Your task to perform on an android device: manage bookmarks in the chrome app Image 0: 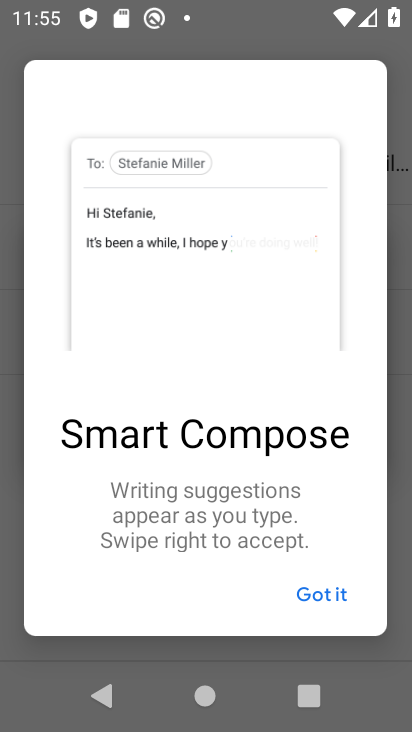
Step 0: click (328, 598)
Your task to perform on an android device: manage bookmarks in the chrome app Image 1: 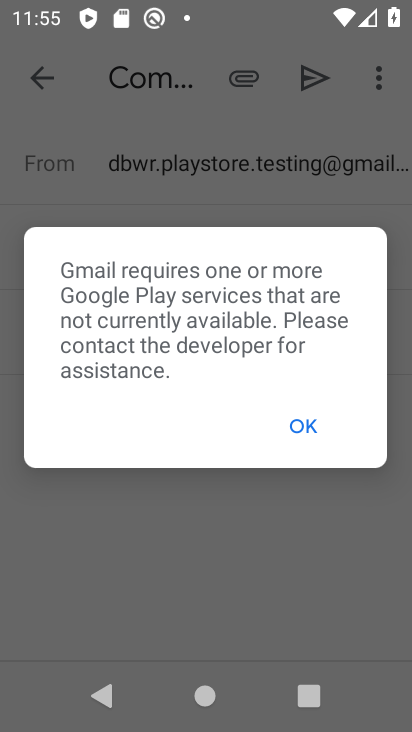
Step 1: click (304, 416)
Your task to perform on an android device: manage bookmarks in the chrome app Image 2: 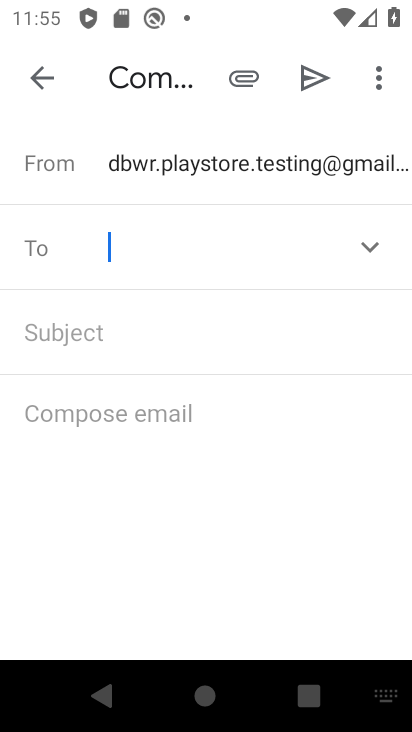
Step 2: click (32, 79)
Your task to perform on an android device: manage bookmarks in the chrome app Image 3: 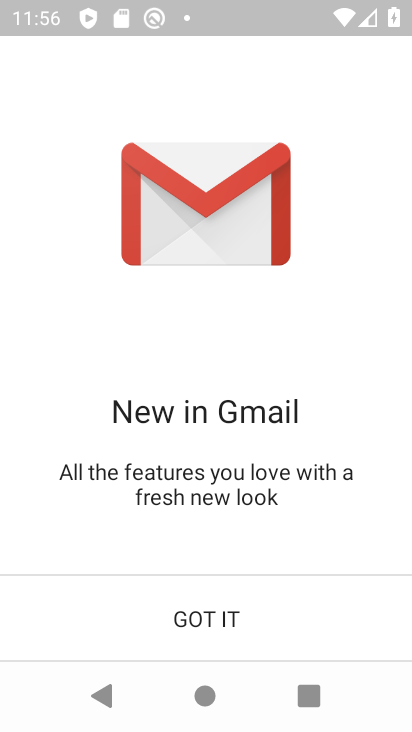
Step 3: click (197, 630)
Your task to perform on an android device: manage bookmarks in the chrome app Image 4: 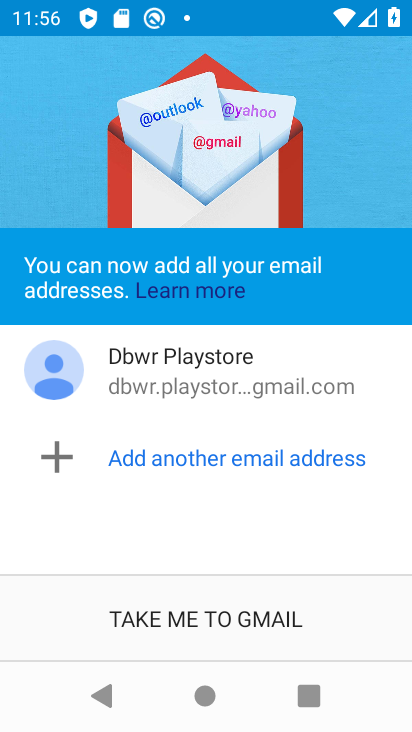
Step 4: click (198, 610)
Your task to perform on an android device: manage bookmarks in the chrome app Image 5: 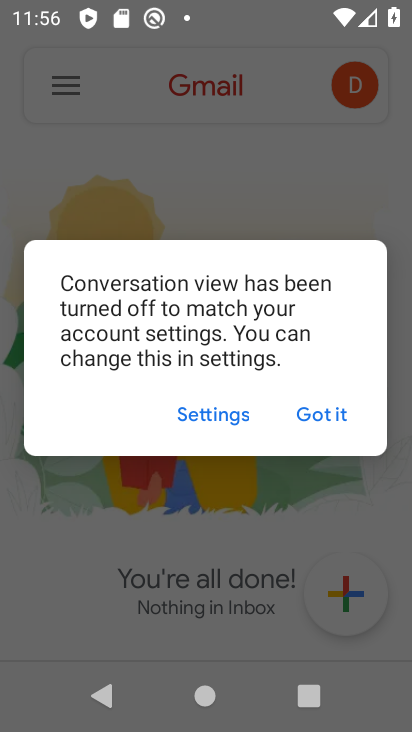
Step 5: click (223, 407)
Your task to perform on an android device: manage bookmarks in the chrome app Image 6: 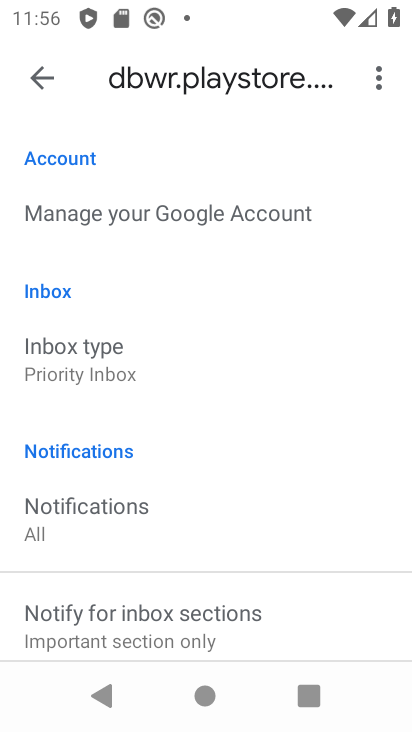
Step 6: click (30, 72)
Your task to perform on an android device: manage bookmarks in the chrome app Image 7: 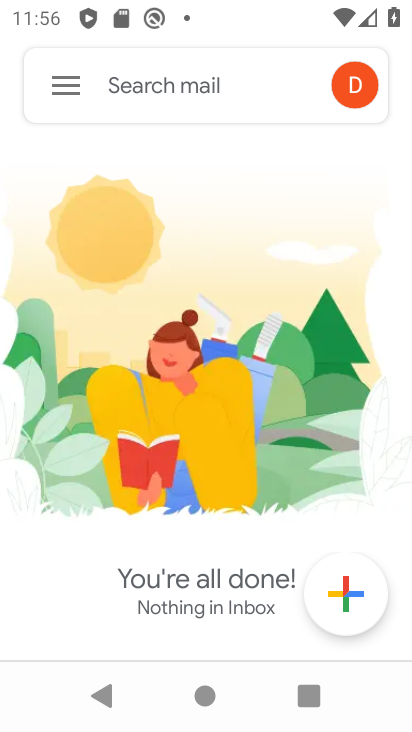
Step 7: press home button
Your task to perform on an android device: manage bookmarks in the chrome app Image 8: 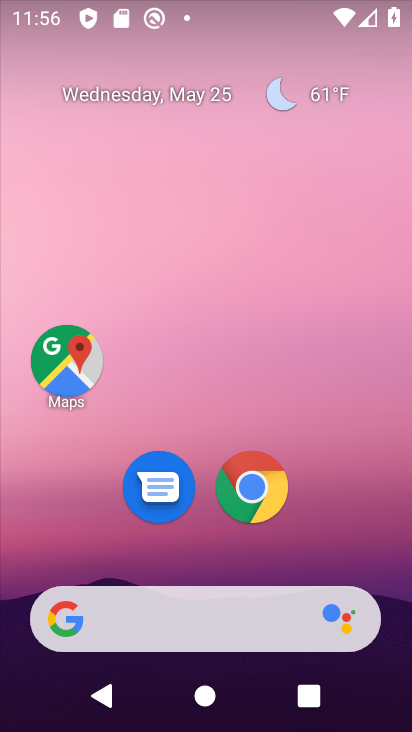
Step 8: drag from (277, 580) to (256, 385)
Your task to perform on an android device: manage bookmarks in the chrome app Image 9: 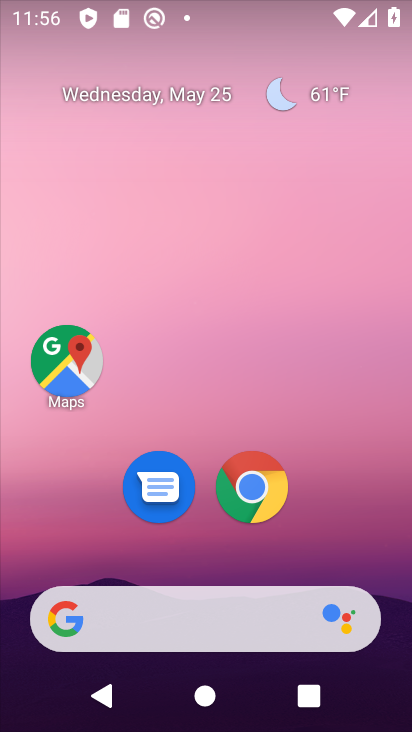
Step 9: drag from (258, 629) to (264, 212)
Your task to perform on an android device: manage bookmarks in the chrome app Image 10: 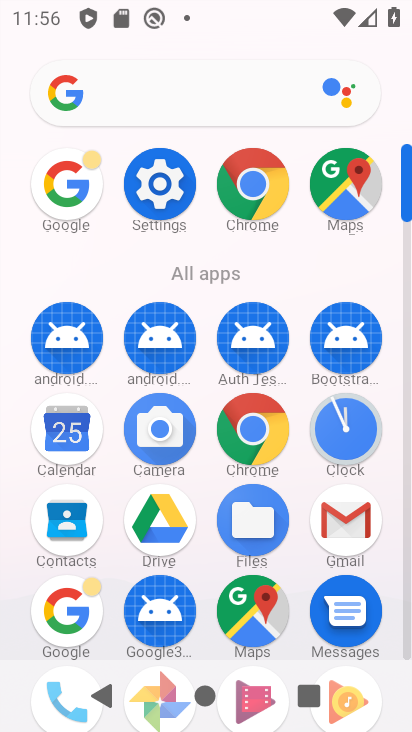
Step 10: click (234, 181)
Your task to perform on an android device: manage bookmarks in the chrome app Image 11: 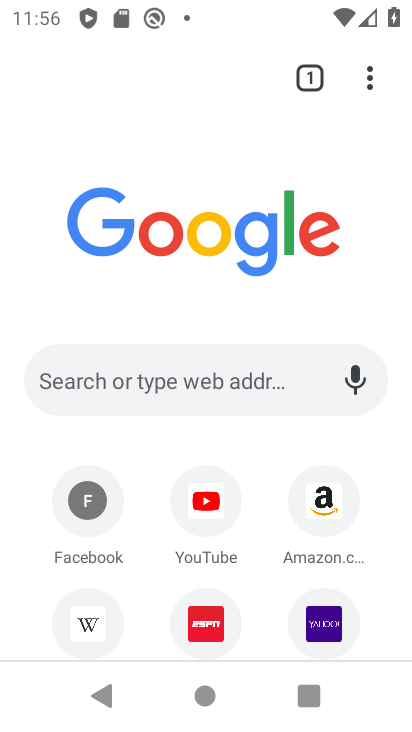
Step 11: drag from (361, 76) to (75, 291)
Your task to perform on an android device: manage bookmarks in the chrome app Image 12: 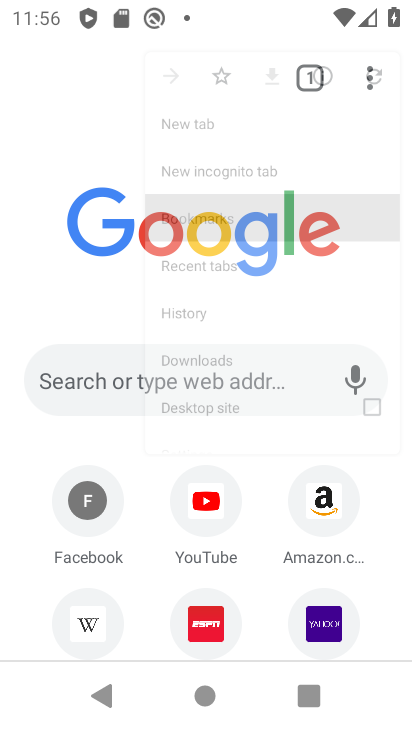
Step 12: click (75, 291)
Your task to perform on an android device: manage bookmarks in the chrome app Image 13: 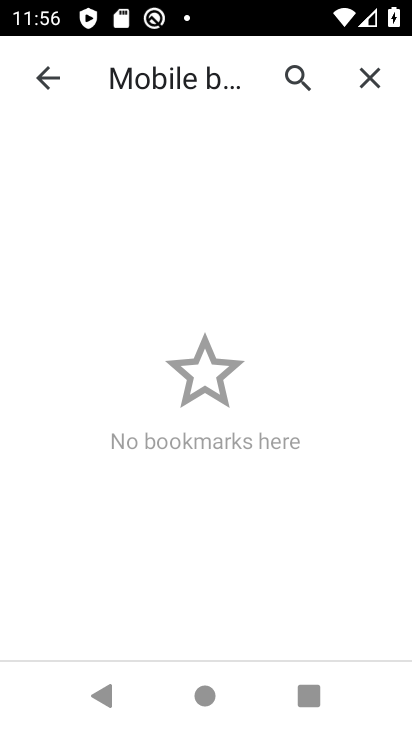
Step 13: task complete